Your task to perform on an android device: Open Amazon Image 0: 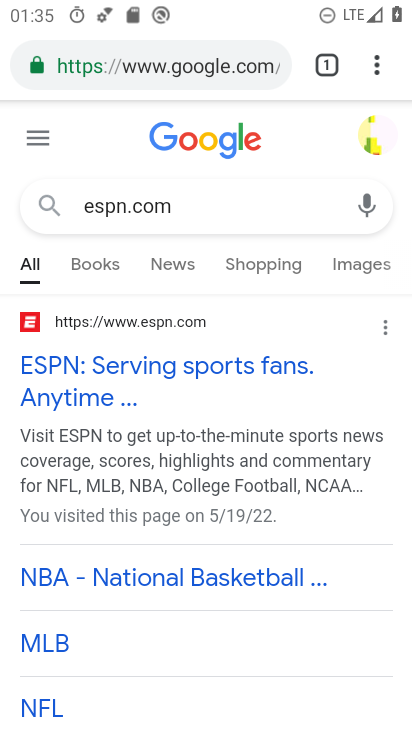
Step 0: press home button
Your task to perform on an android device: Open Amazon Image 1: 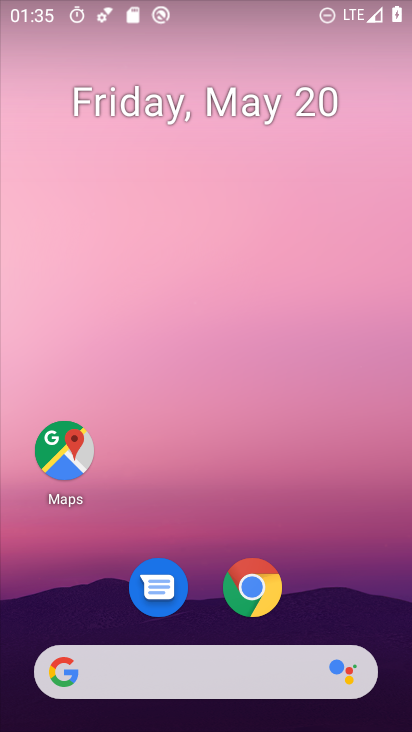
Step 1: drag from (366, 609) to (376, 228)
Your task to perform on an android device: Open Amazon Image 2: 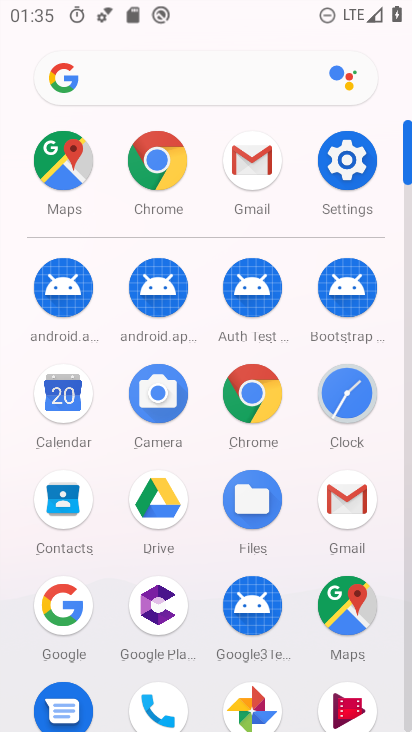
Step 2: click (258, 407)
Your task to perform on an android device: Open Amazon Image 3: 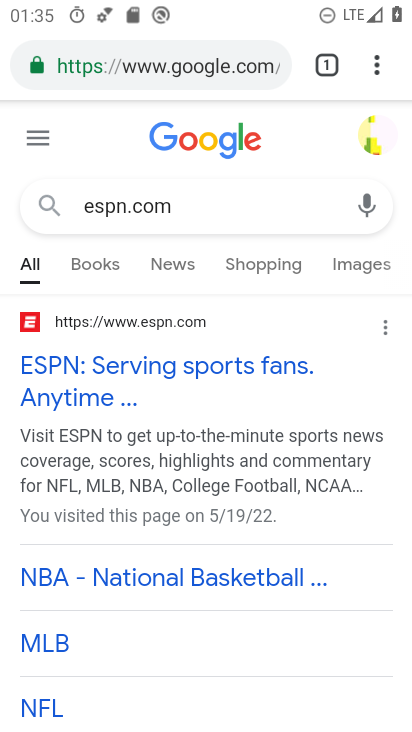
Step 3: press back button
Your task to perform on an android device: Open Amazon Image 4: 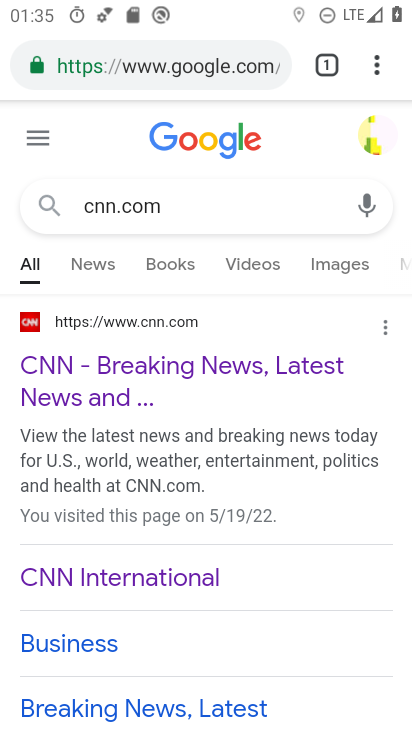
Step 4: press back button
Your task to perform on an android device: Open Amazon Image 5: 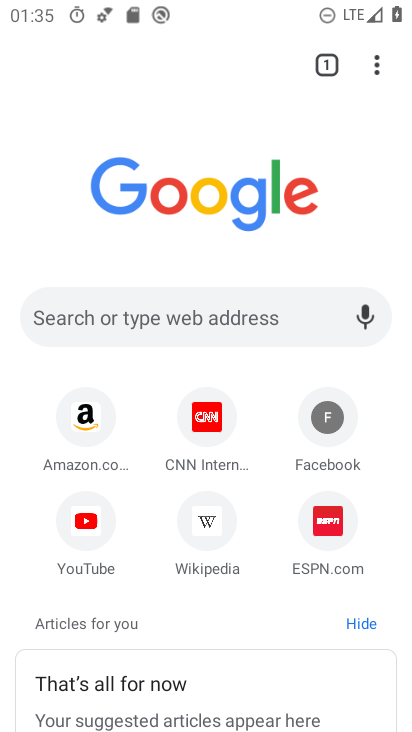
Step 5: click (88, 423)
Your task to perform on an android device: Open Amazon Image 6: 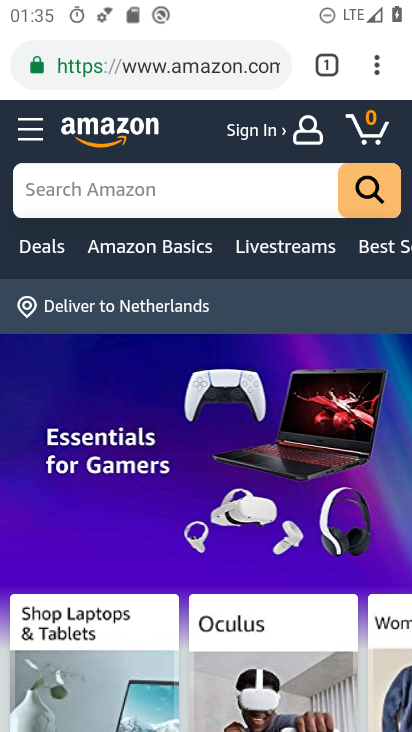
Step 6: task complete